Your task to perform on an android device: turn on bluetooth scan Image 0: 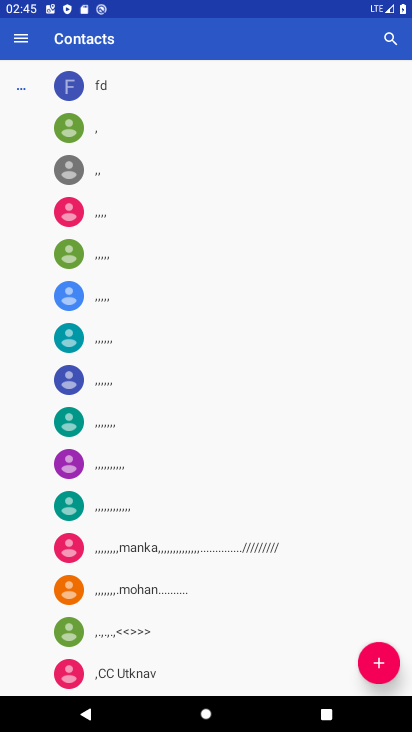
Step 0: press home button
Your task to perform on an android device: turn on bluetooth scan Image 1: 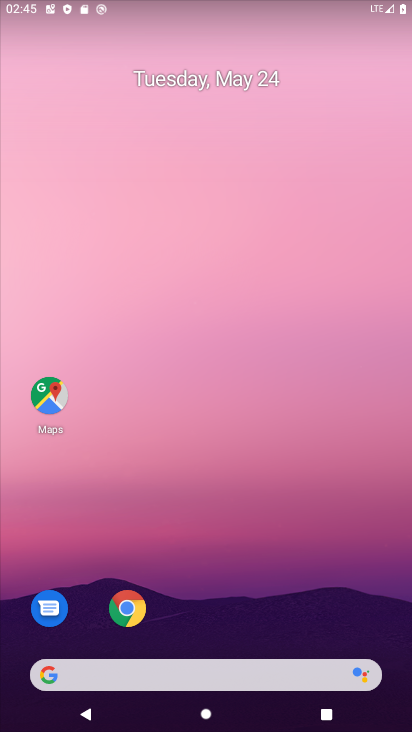
Step 1: drag from (165, 370) to (140, 287)
Your task to perform on an android device: turn on bluetooth scan Image 2: 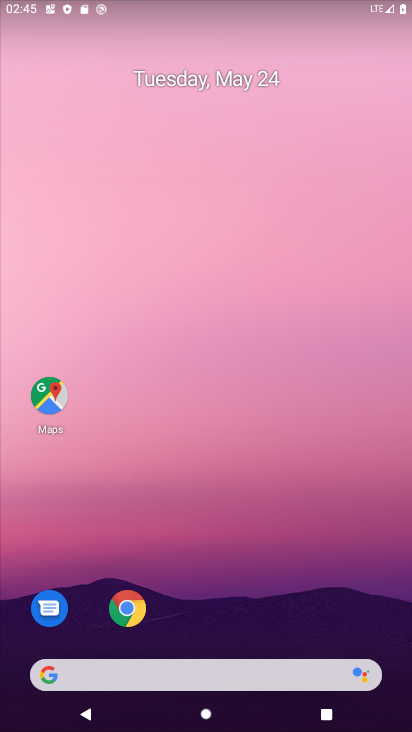
Step 2: drag from (219, 623) to (178, 283)
Your task to perform on an android device: turn on bluetooth scan Image 3: 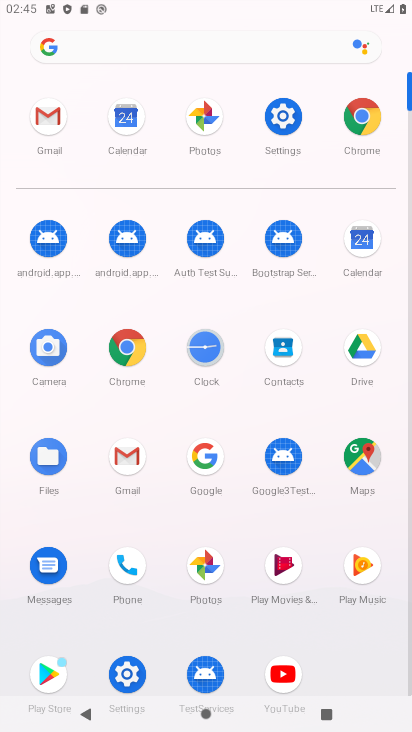
Step 3: click (286, 128)
Your task to perform on an android device: turn on bluetooth scan Image 4: 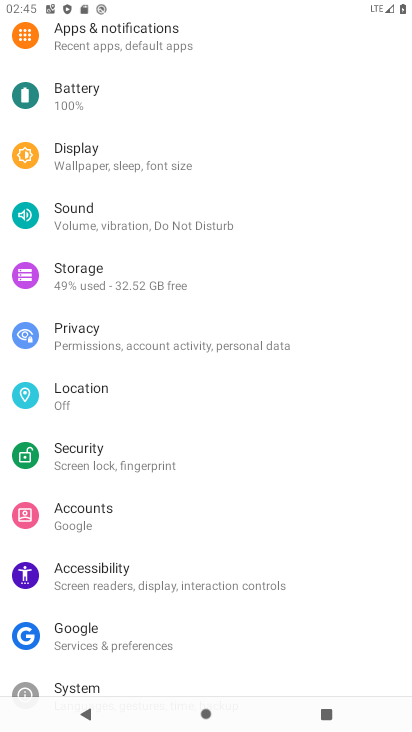
Step 4: click (172, 402)
Your task to perform on an android device: turn on bluetooth scan Image 5: 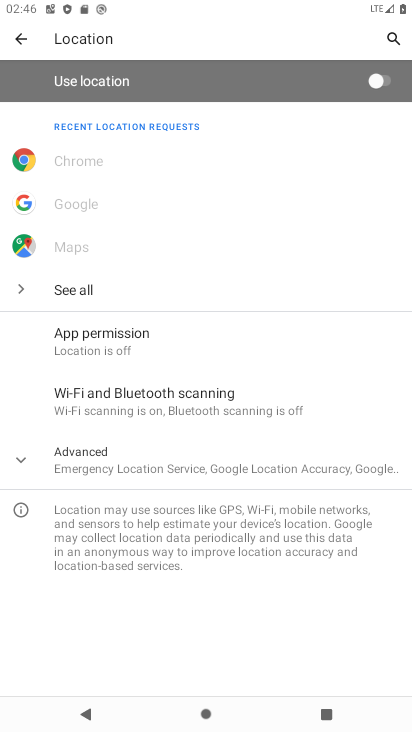
Step 5: click (172, 402)
Your task to perform on an android device: turn on bluetooth scan Image 6: 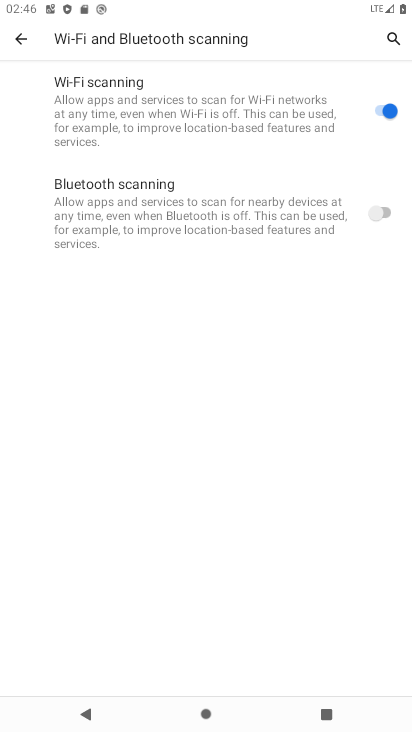
Step 6: click (381, 216)
Your task to perform on an android device: turn on bluetooth scan Image 7: 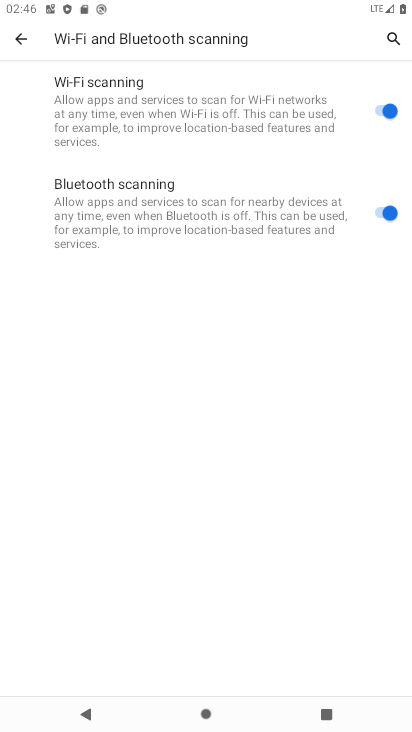
Step 7: task complete